Your task to perform on an android device: Open Google Image 0: 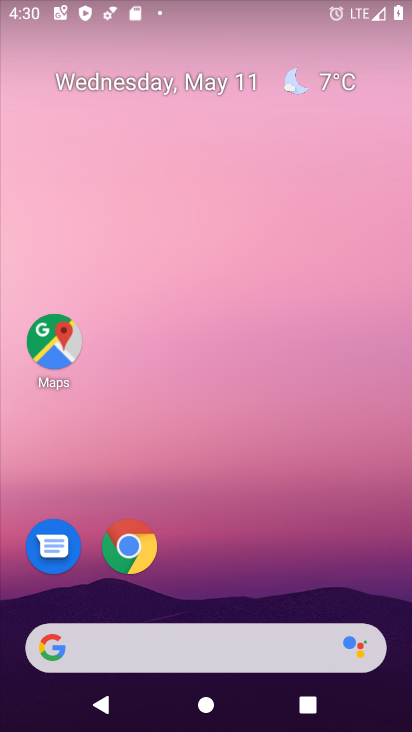
Step 0: drag from (320, 581) to (382, 312)
Your task to perform on an android device: Open Google Image 1: 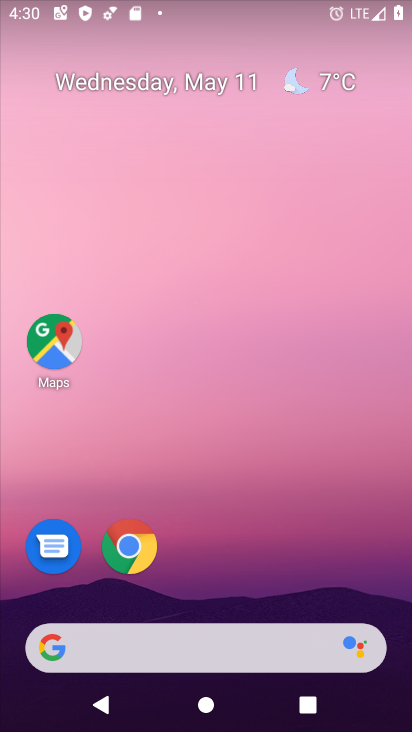
Step 1: drag from (281, 705) to (409, 16)
Your task to perform on an android device: Open Google Image 2: 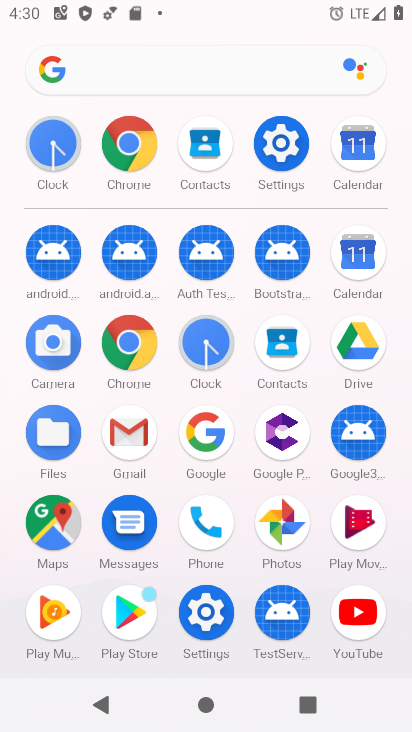
Step 2: click (123, 345)
Your task to perform on an android device: Open Google Image 3: 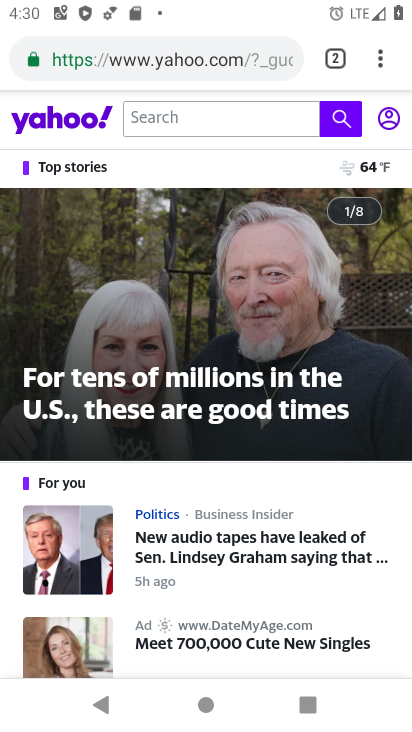
Step 3: task complete